Your task to perform on an android device: Check the weather Image 0: 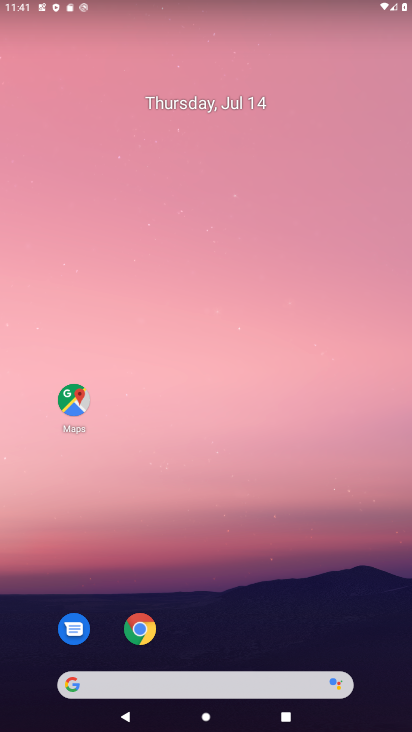
Step 0: click (62, 680)
Your task to perform on an android device: Check the weather Image 1: 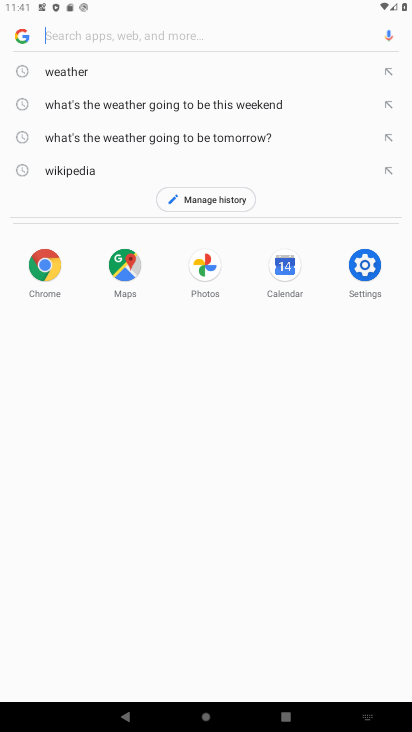
Step 1: click (63, 75)
Your task to perform on an android device: Check the weather Image 2: 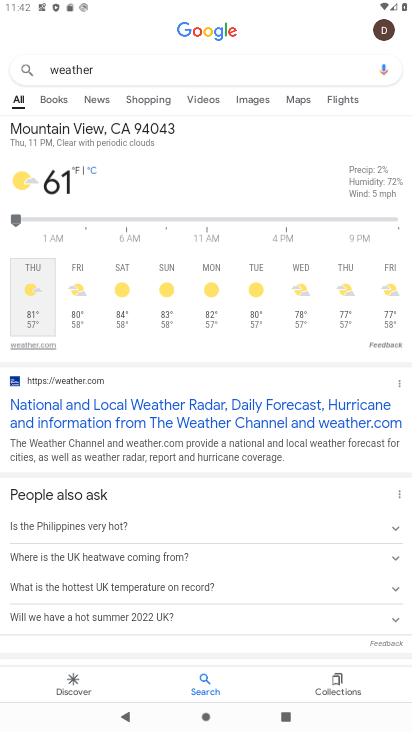
Step 2: task complete